Your task to perform on an android device: Go to Yahoo.com Image 0: 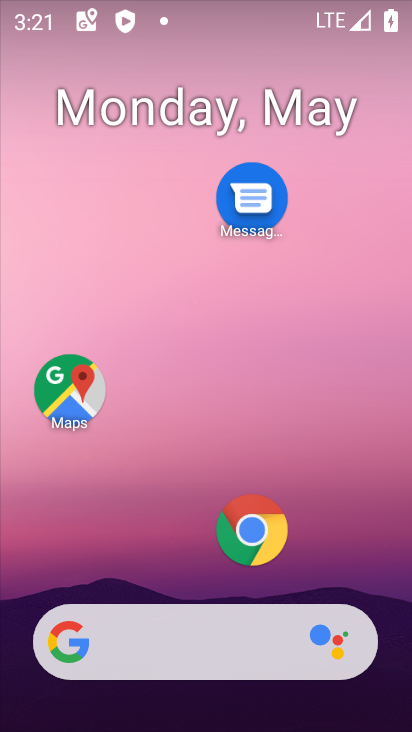
Step 0: click (257, 543)
Your task to perform on an android device: Go to Yahoo.com Image 1: 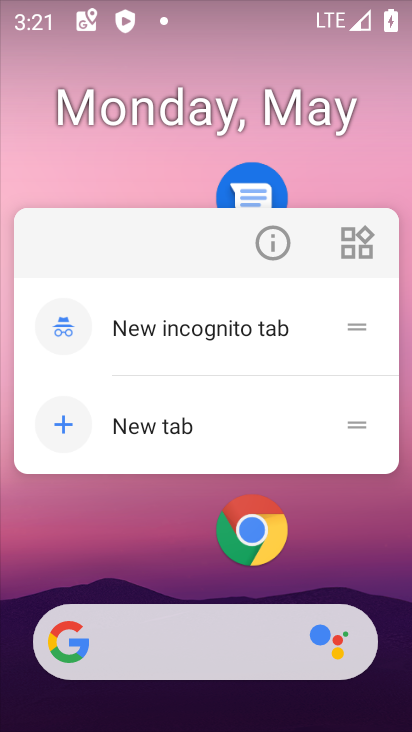
Step 1: click (261, 525)
Your task to perform on an android device: Go to Yahoo.com Image 2: 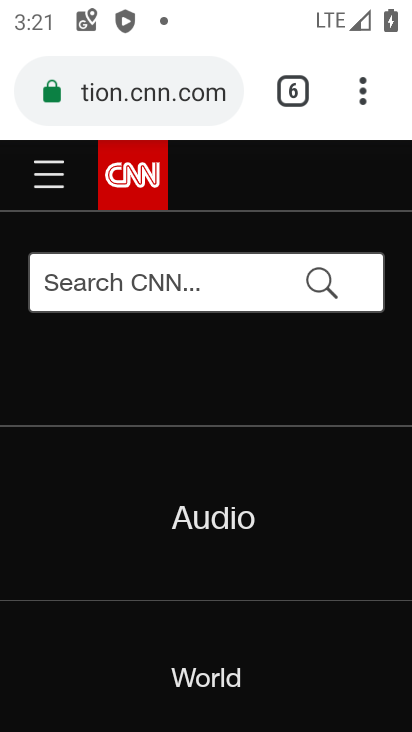
Step 2: click (301, 100)
Your task to perform on an android device: Go to Yahoo.com Image 3: 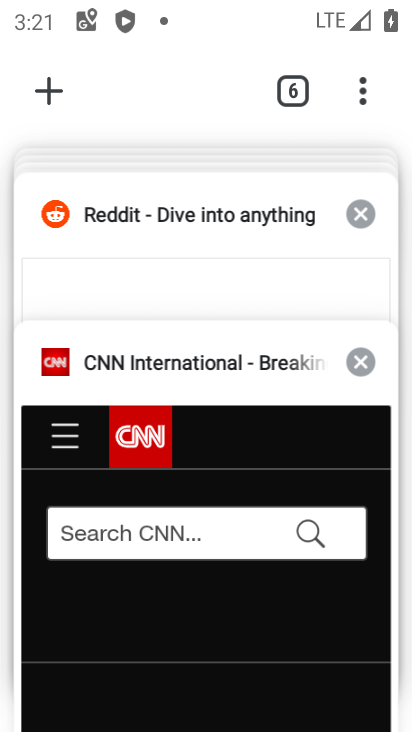
Step 3: drag from (134, 218) to (134, 645)
Your task to perform on an android device: Go to Yahoo.com Image 4: 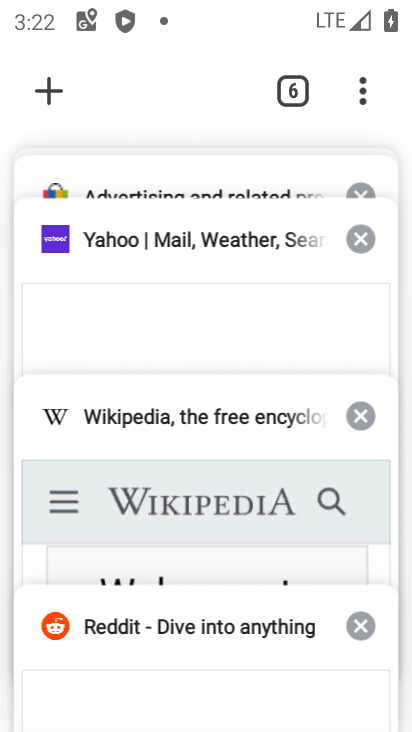
Step 4: click (111, 236)
Your task to perform on an android device: Go to Yahoo.com Image 5: 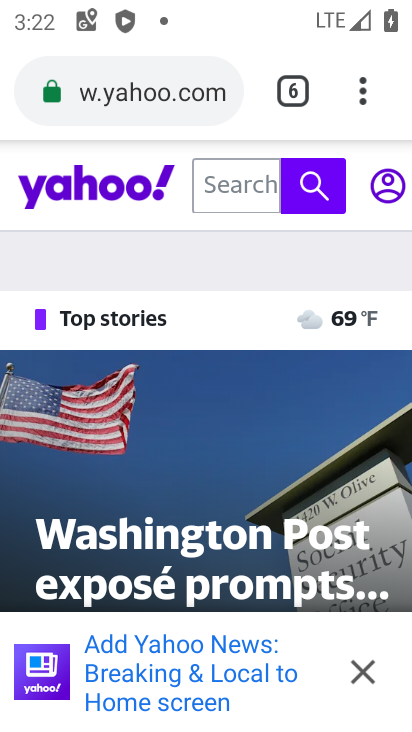
Step 5: task complete